Your task to perform on an android device: delete location history Image 0: 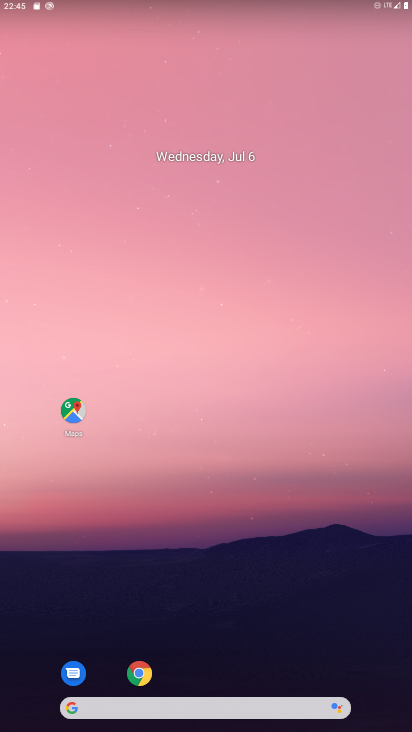
Step 0: click (70, 411)
Your task to perform on an android device: delete location history Image 1: 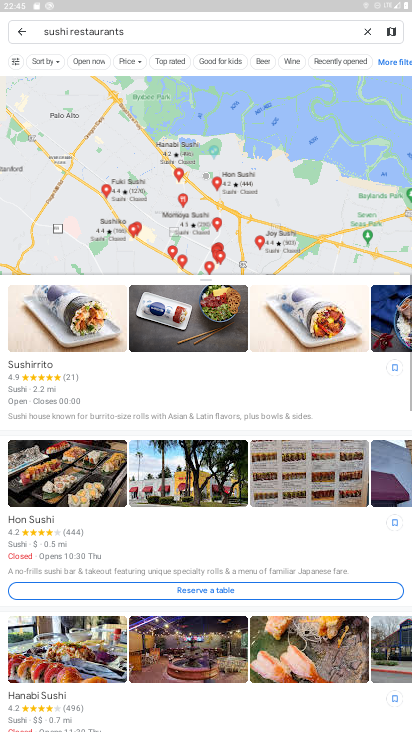
Step 1: click (26, 39)
Your task to perform on an android device: delete location history Image 2: 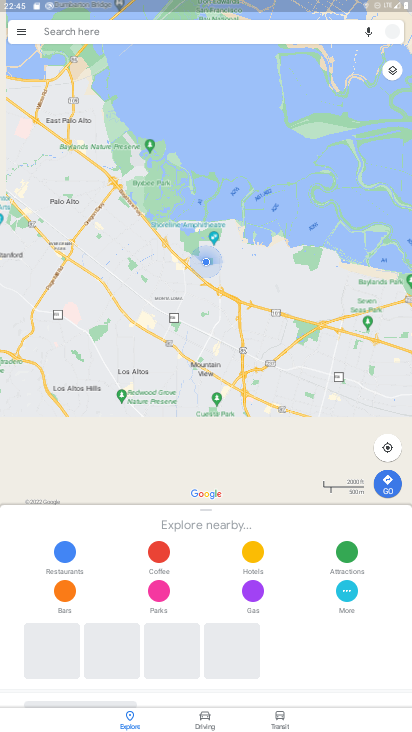
Step 2: click (26, 39)
Your task to perform on an android device: delete location history Image 3: 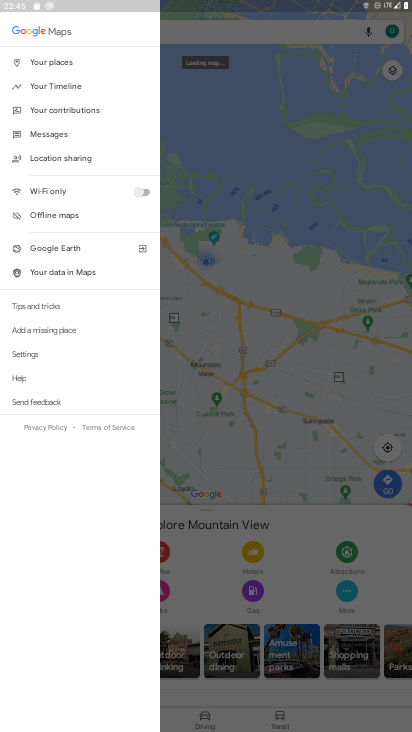
Step 3: click (50, 86)
Your task to perform on an android device: delete location history Image 4: 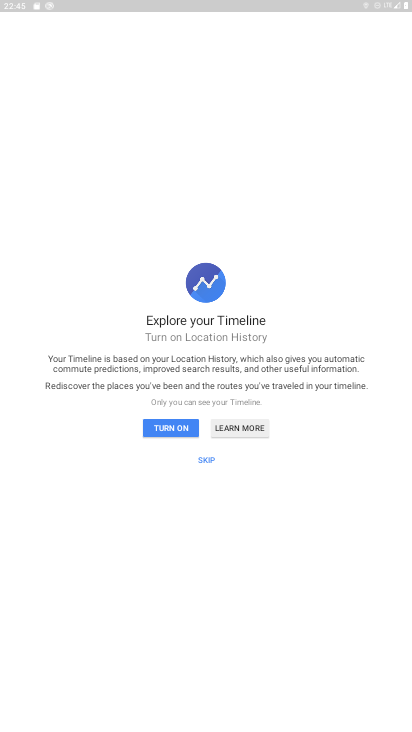
Step 4: click (163, 429)
Your task to perform on an android device: delete location history Image 5: 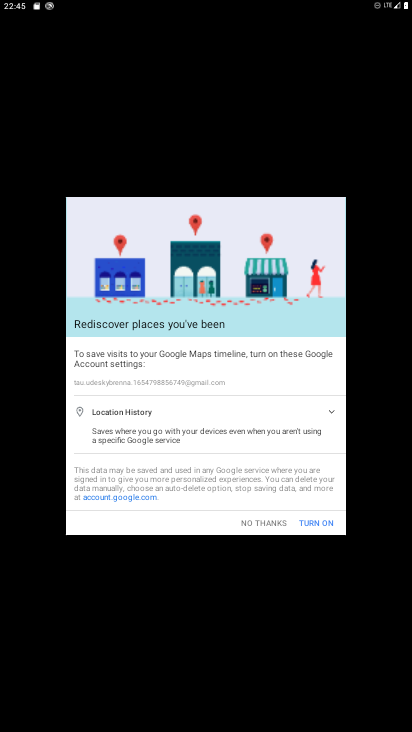
Step 5: click (326, 525)
Your task to perform on an android device: delete location history Image 6: 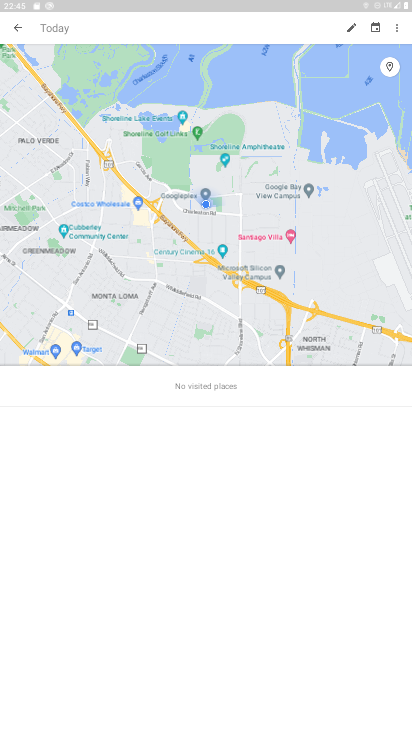
Step 6: click (396, 26)
Your task to perform on an android device: delete location history Image 7: 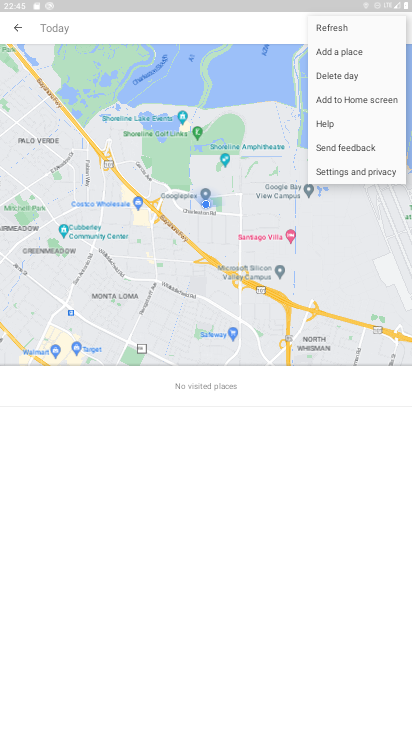
Step 7: click (333, 170)
Your task to perform on an android device: delete location history Image 8: 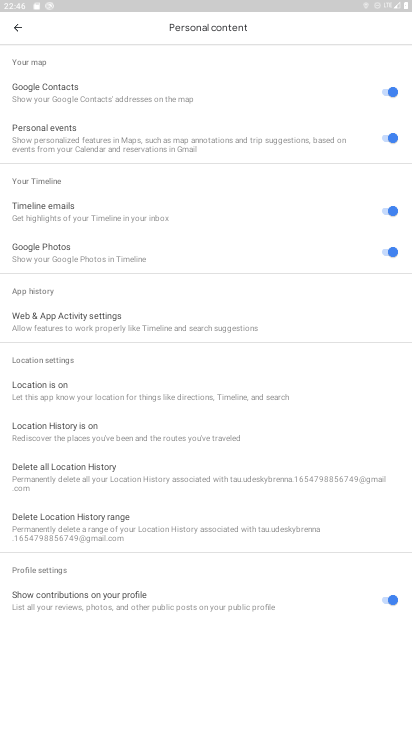
Step 8: click (38, 470)
Your task to perform on an android device: delete location history Image 9: 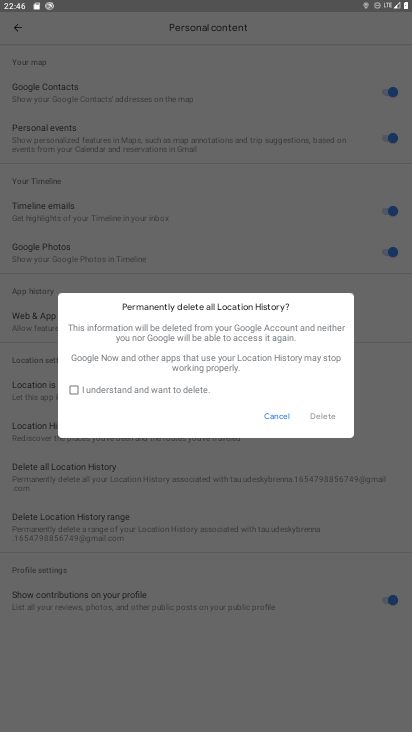
Step 9: click (72, 388)
Your task to perform on an android device: delete location history Image 10: 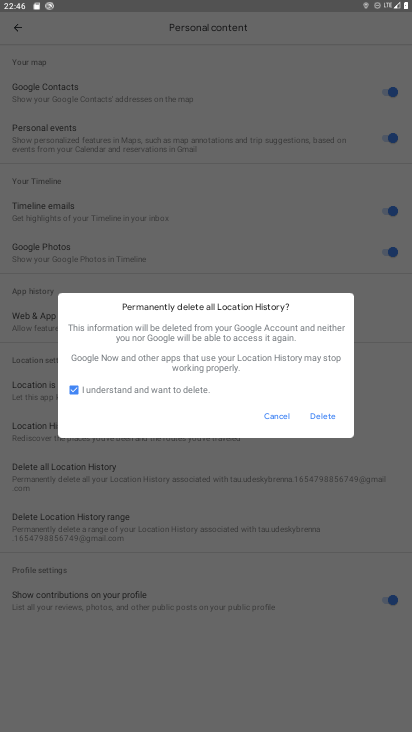
Step 10: click (333, 417)
Your task to perform on an android device: delete location history Image 11: 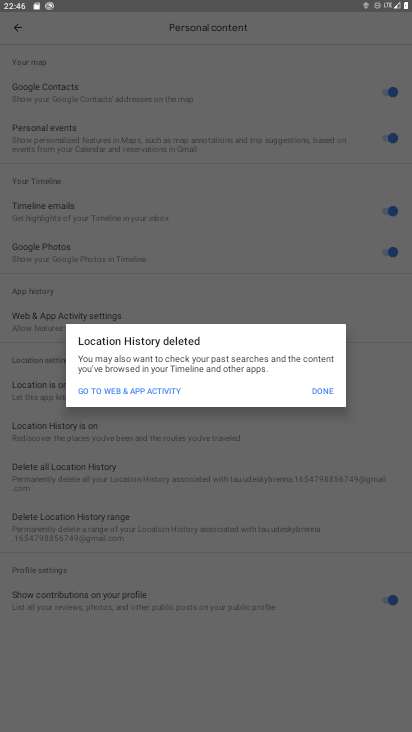
Step 11: click (321, 387)
Your task to perform on an android device: delete location history Image 12: 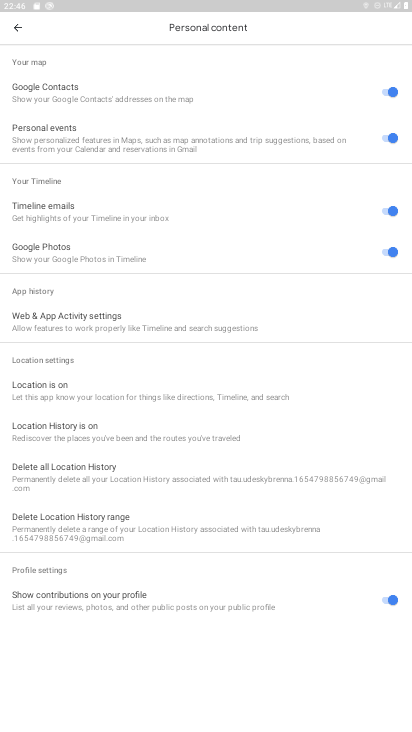
Step 12: task complete